Your task to perform on an android device: add a contact Image 0: 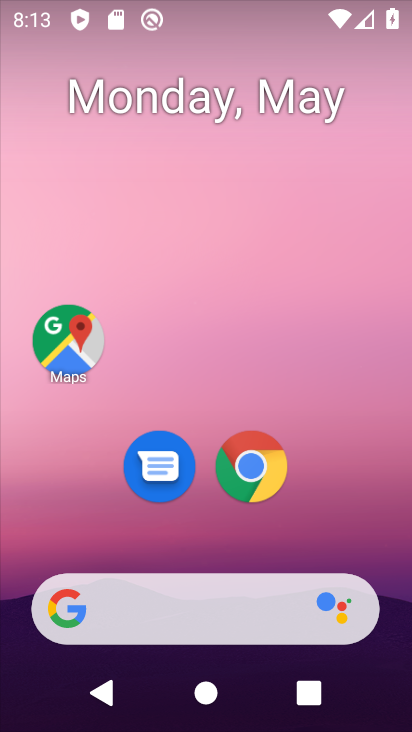
Step 0: drag from (314, 154) to (271, 4)
Your task to perform on an android device: add a contact Image 1: 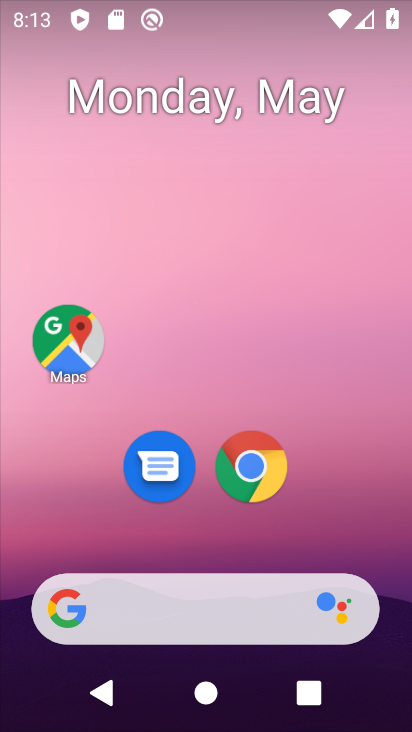
Step 1: drag from (245, 655) to (227, 13)
Your task to perform on an android device: add a contact Image 2: 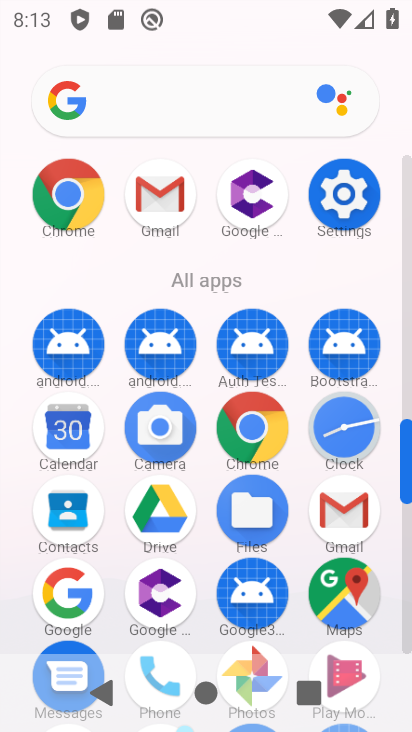
Step 2: click (151, 646)
Your task to perform on an android device: add a contact Image 3: 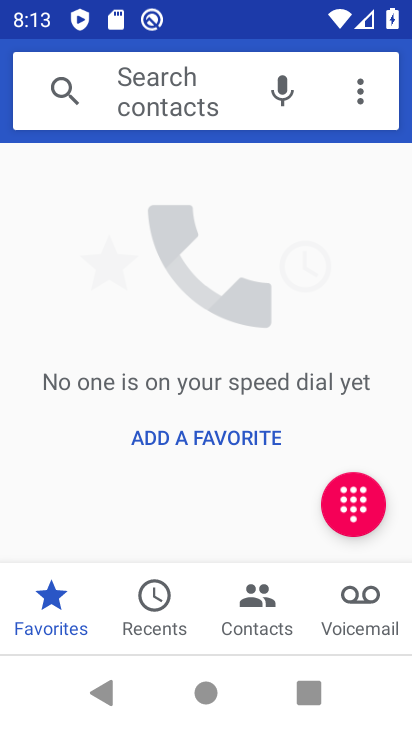
Step 3: click (252, 614)
Your task to perform on an android device: add a contact Image 4: 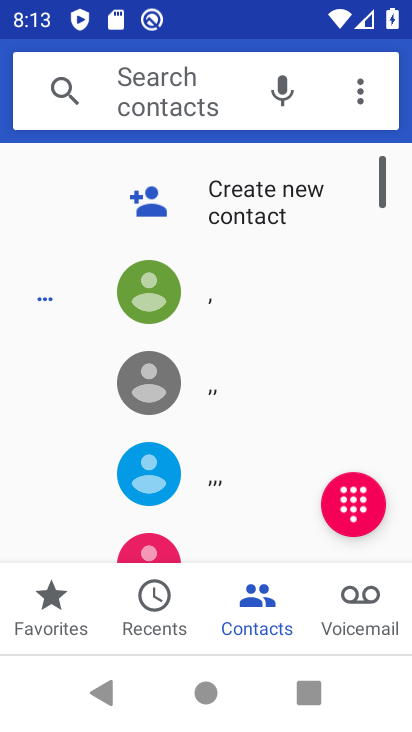
Step 4: click (125, 216)
Your task to perform on an android device: add a contact Image 5: 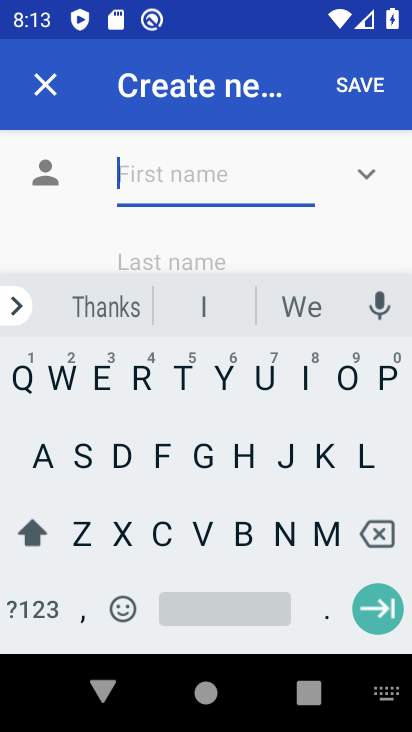
Step 5: click (176, 375)
Your task to perform on an android device: add a contact Image 6: 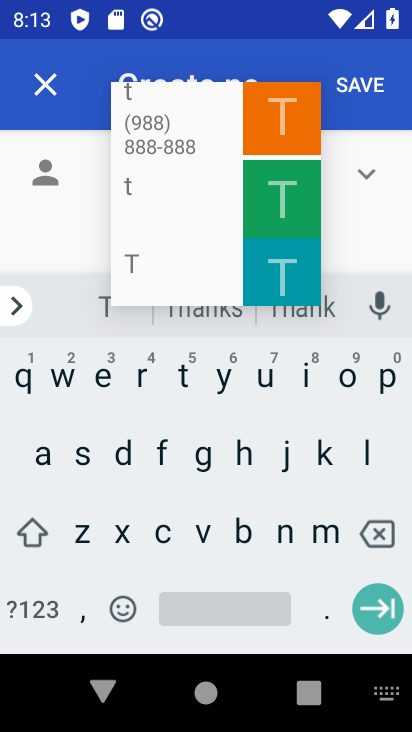
Step 6: click (139, 445)
Your task to perform on an android device: add a contact Image 7: 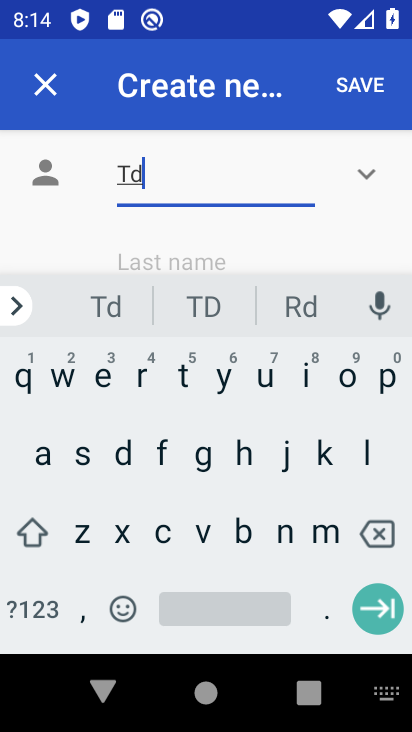
Step 7: click (355, 88)
Your task to perform on an android device: add a contact Image 8: 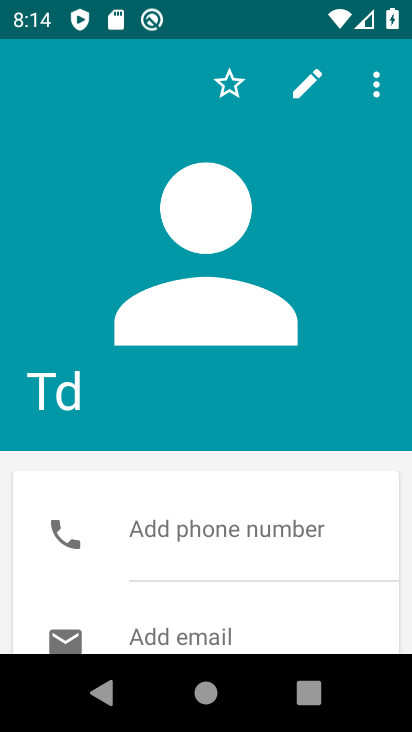
Step 8: task complete